Your task to perform on an android device: toggle notifications settings in the gmail app Image 0: 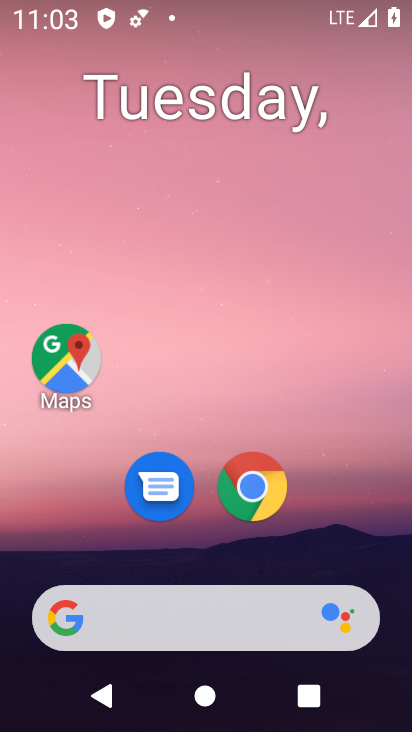
Step 0: drag from (347, 510) to (336, 158)
Your task to perform on an android device: toggle notifications settings in the gmail app Image 1: 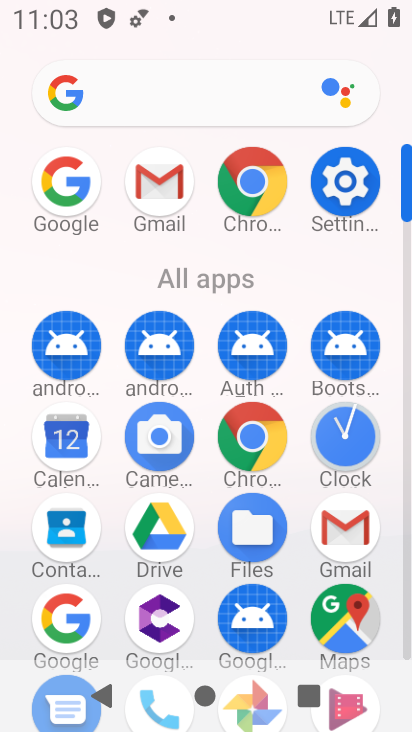
Step 1: click (362, 529)
Your task to perform on an android device: toggle notifications settings in the gmail app Image 2: 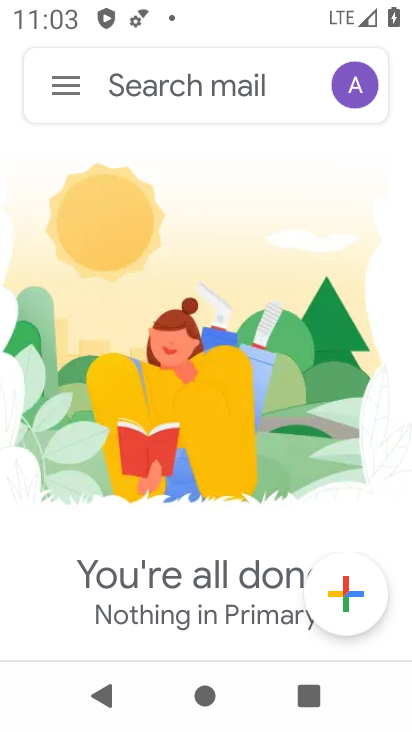
Step 2: click (55, 86)
Your task to perform on an android device: toggle notifications settings in the gmail app Image 3: 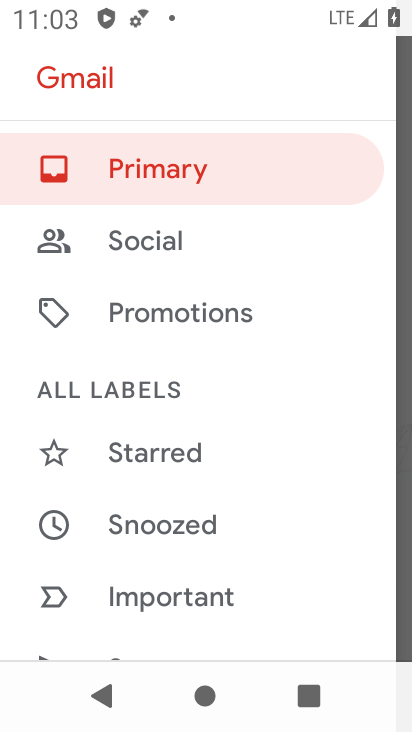
Step 3: drag from (304, 396) to (311, 283)
Your task to perform on an android device: toggle notifications settings in the gmail app Image 4: 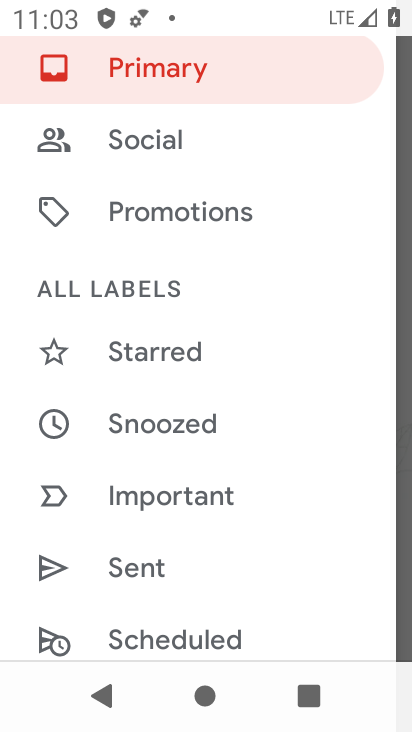
Step 4: drag from (309, 426) to (317, 321)
Your task to perform on an android device: toggle notifications settings in the gmail app Image 5: 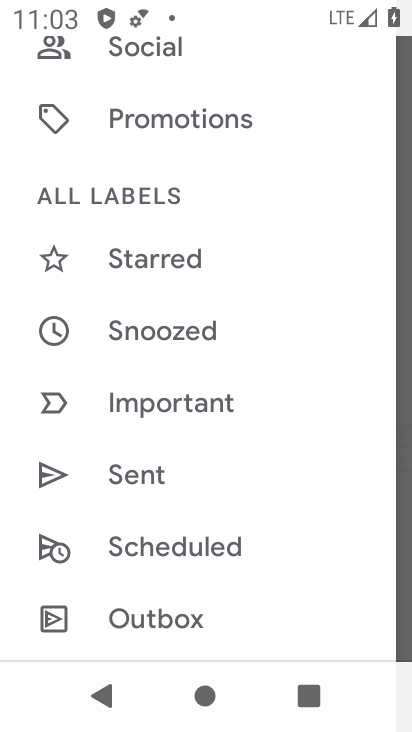
Step 5: drag from (320, 411) to (321, 310)
Your task to perform on an android device: toggle notifications settings in the gmail app Image 6: 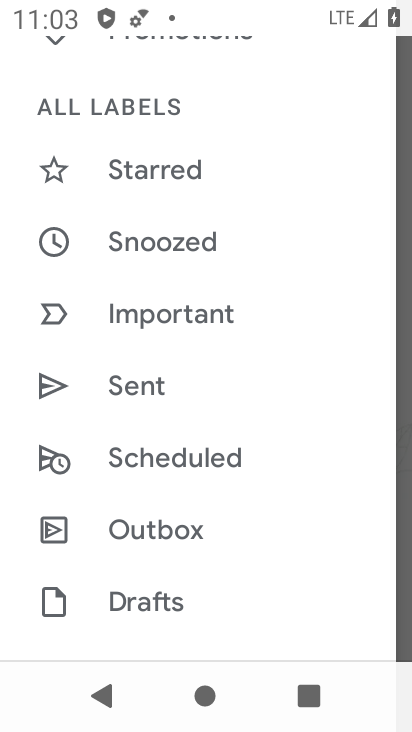
Step 6: drag from (316, 437) to (318, 356)
Your task to perform on an android device: toggle notifications settings in the gmail app Image 7: 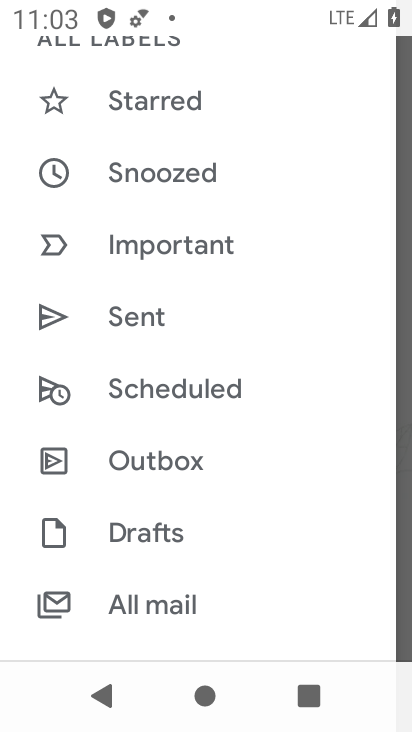
Step 7: drag from (332, 457) to (347, 375)
Your task to perform on an android device: toggle notifications settings in the gmail app Image 8: 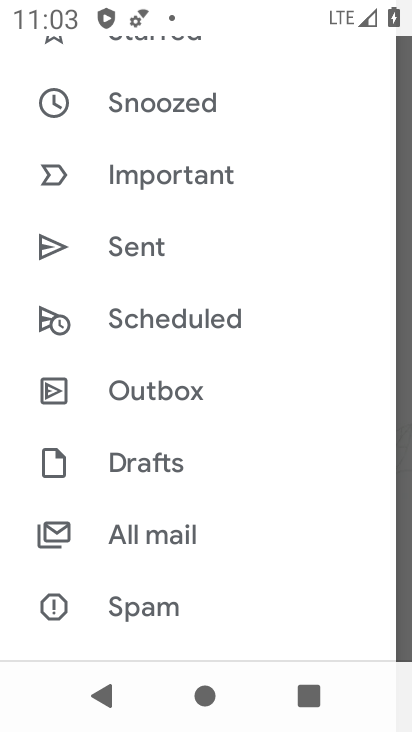
Step 8: drag from (337, 444) to (341, 376)
Your task to perform on an android device: toggle notifications settings in the gmail app Image 9: 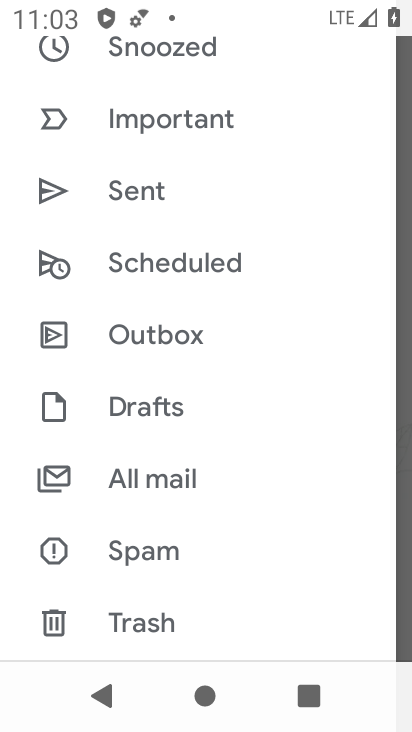
Step 9: drag from (333, 447) to (332, 366)
Your task to perform on an android device: toggle notifications settings in the gmail app Image 10: 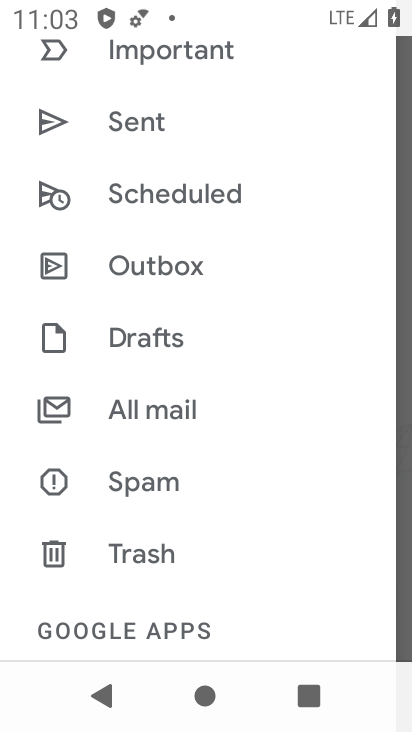
Step 10: drag from (311, 429) to (309, 344)
Your task to perform on an android device: toggle notifications settings in the gmail app Image 11: 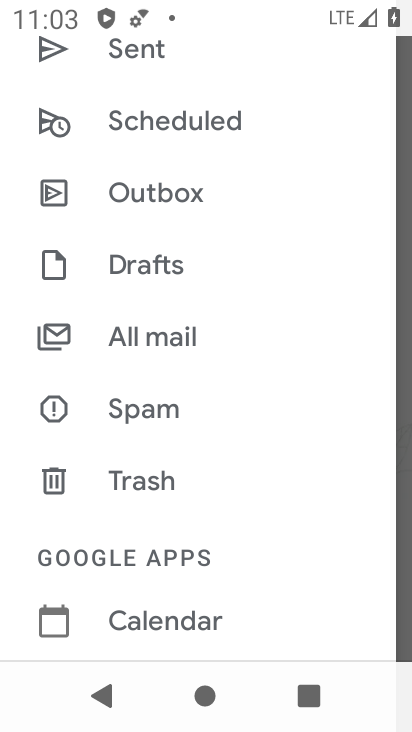
Step 11: drag from (309, 415) to (310, 339)
Your task to perform on an android device: toggle notifications settings in the gmail app Image 12: 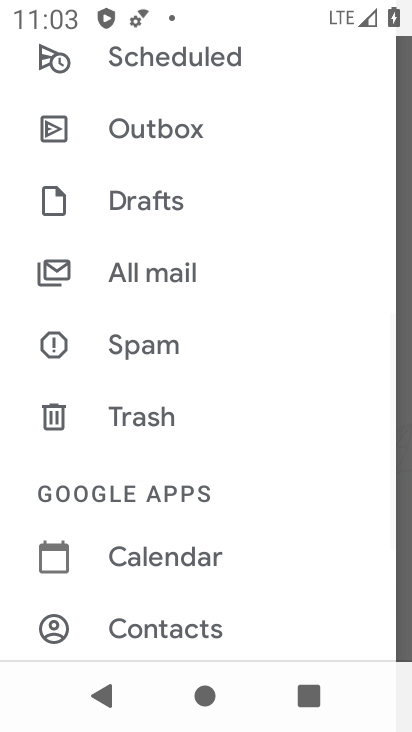
Step 12: drag from (312, 409) to (326, 312)
Your task to perform on an android device: toggle notifications settings in the gmail app Image 13: 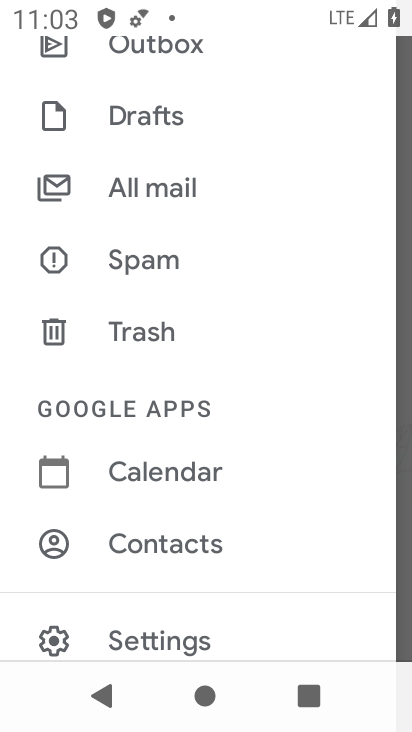
Step 13: drag from (321, 398) to (323, 298)
Your task to perform on an android device: toggle notifications settings in the gmail app Image 14: 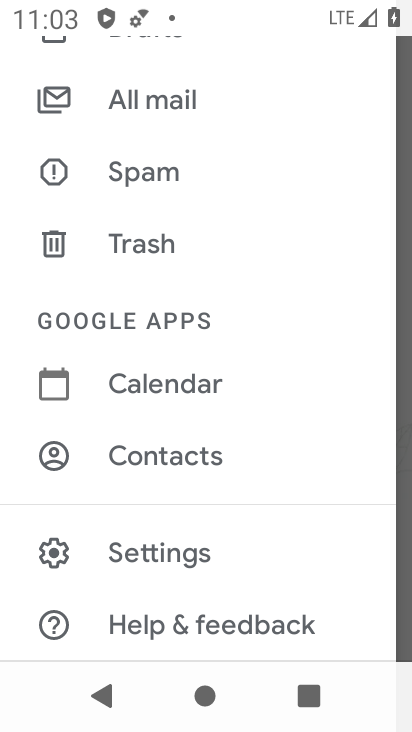
Step 14: drag from (323, 428) to (330, 307)
Your task to perform on an android device: toggle notifications settings in the gmail app Image 15: 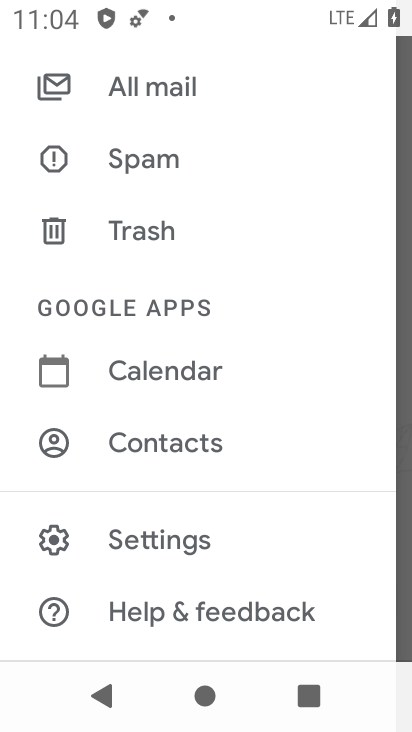
Step 15: click (247, 521)
Your task to perform on an android device: toggle notifications settings in the gmail app Image 16: 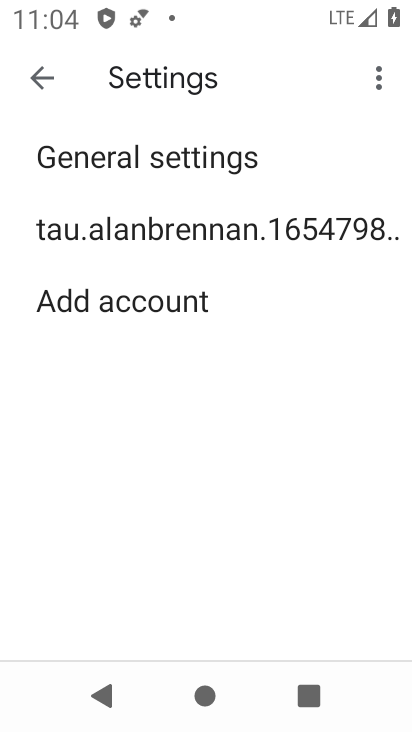
Step 16: click (282, 234)
Your task to perform on an android device: toggle notifications settings in the gmail app Image 17: 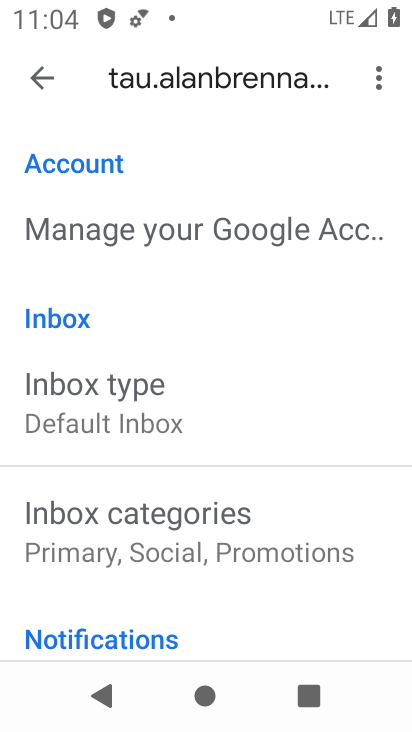
Step 17: drag from (292, 414) to (302, 340)
Your task to perform on an android device: toggle notifications settings in the gmail app Image 18: 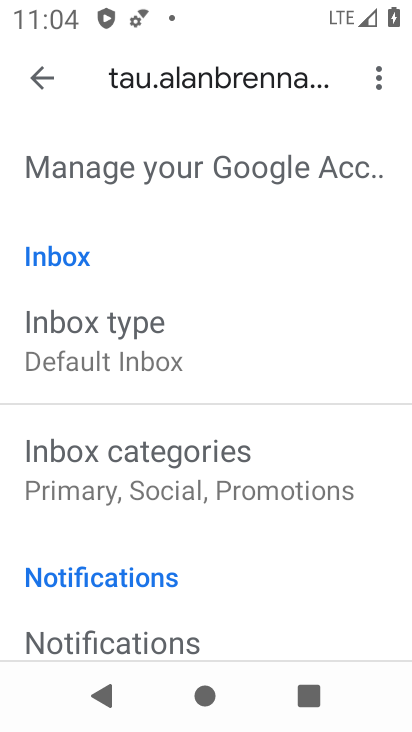
Step 18: drag from (312, 442) to (314, 348)
Your task to perform on an android device: toggle notifications settings in the gmail app Image 19: 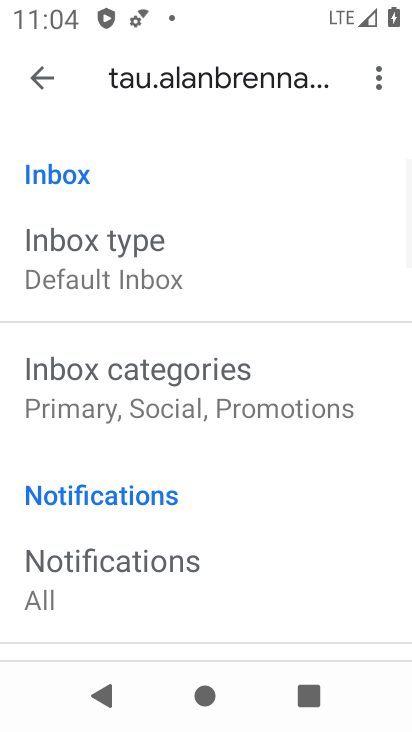
Step 19: drag from (317, 461) to (319, 377)
Your task to perform on an android device: toggle notifications settings in the gmail app Image 20: 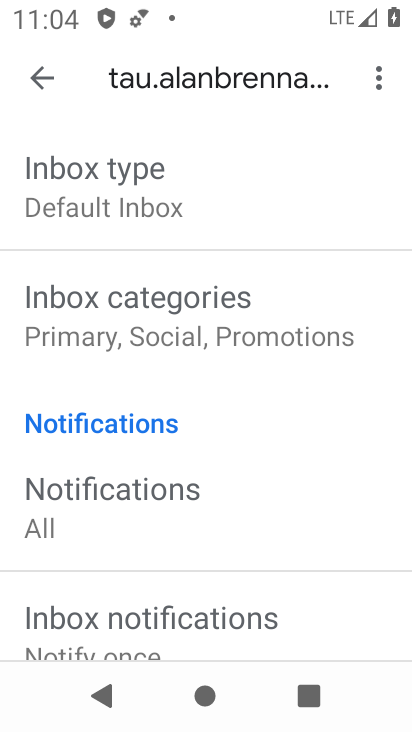
Step 20: drag from (318, 450) to (325, 387)
Your task to perform on an android device: toggle notifications settings in the gmail app Image 21: 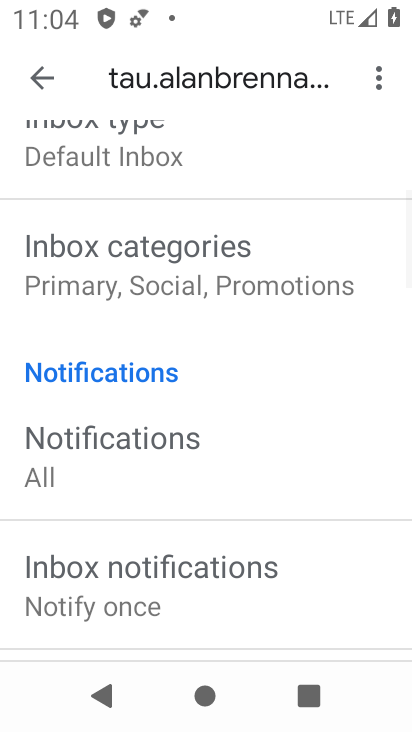
Step 21: drag from (331, 485) to (333, 388)
Your task to perform on an android device: toggle notifications settings in the gmail app Image 22: 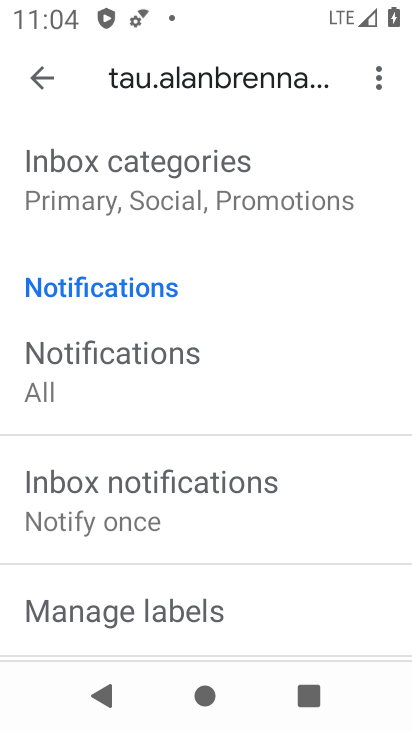
Step 22: drag from (323, 306) to (328, 439)
Your task to perform on an android device: toggle notifications settings in the gmail app Image 23: 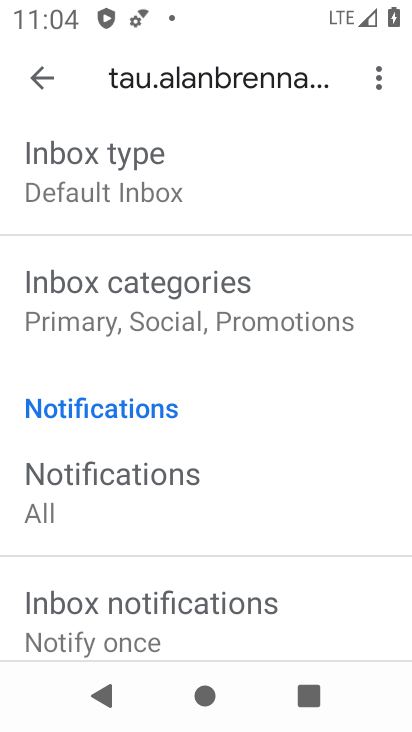
Step 23: drag from (254, 498) to (262, 313)
Your task to perform on an android device: toggle notifications settings in the gmail app Image 24: 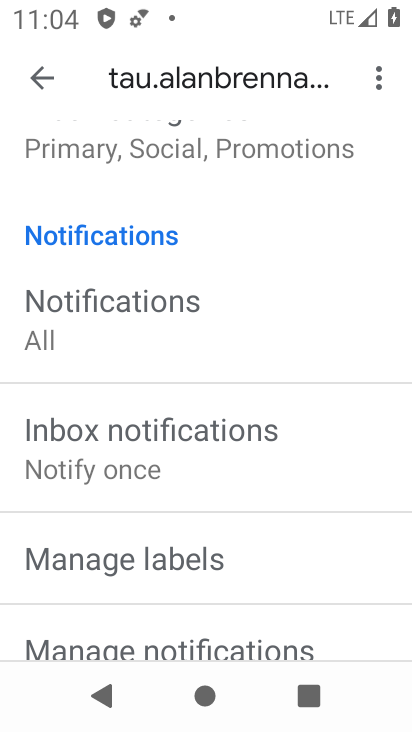
Step 24: drag from (290, 536) to (297, 328)
Your task to perform on an android device: toggle notifications settings in the gmail app Image 25: 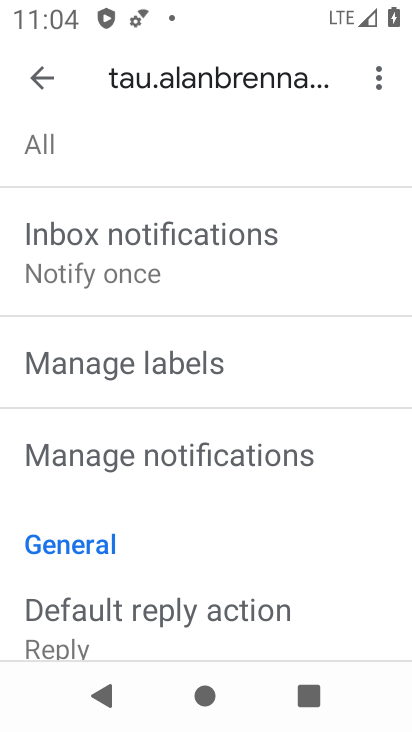
Step 25: click (298, 463)
Your task to perform on an android device: toggle notifications settings in the gmail app Image 26: 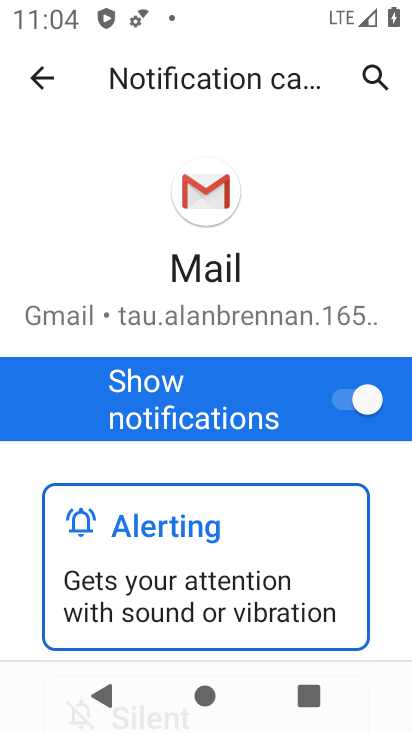
Step 26: click (369, 397)
Your task to perform on an android device: toggle notifications settings in the gmail app Image 27: 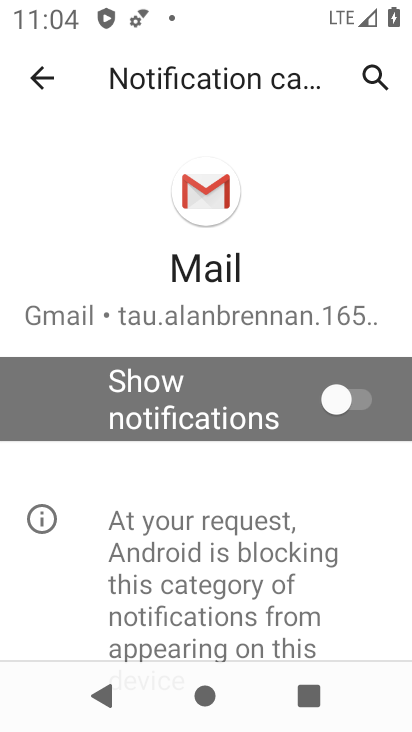
Step 27: task complete